Your task to perform on an android device: turn vacation reply on in the gmail app Image 0: 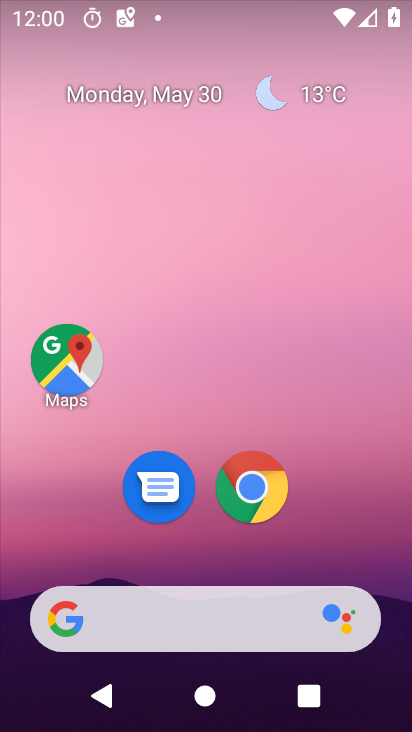
Step 0: drag from (391, 681) to (351, 179)
Your task to perform on an android device: turn vacation reply on in the gmail app Image 1: 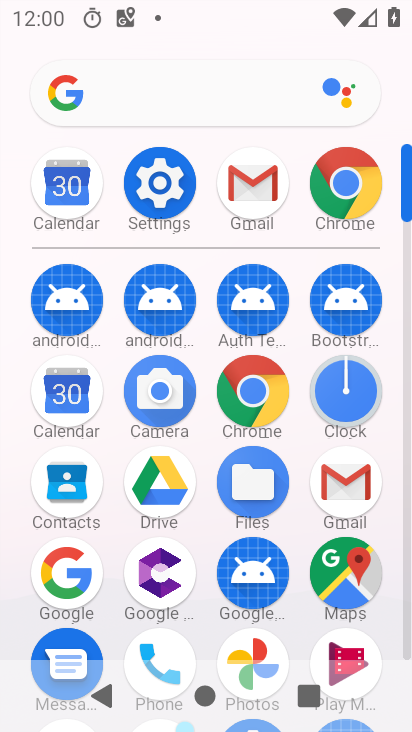
Step 1: click (328, 478)
Your task to perform on an android device: turn vacation reply on in the gmail app Image 2: 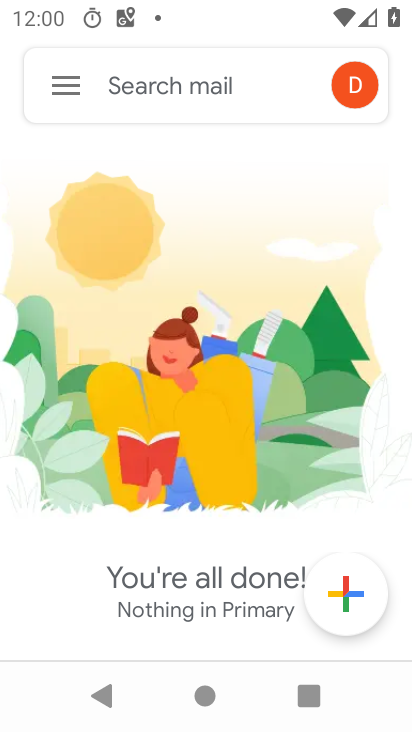
Step 2: click (70, 86)
Your task to perform on an android device: turn vacation reply on in the gmail app Image 3: 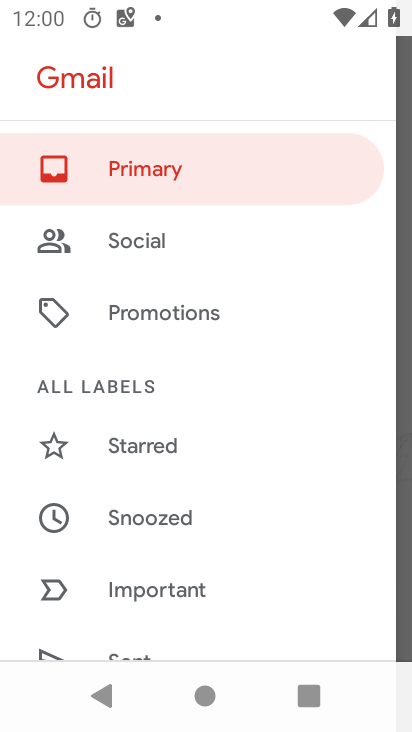
Step 3: drag from (257, 593) to (271, 243)
Your task to perform on an android device: turn vacation reply on in the gmail app Image 4: 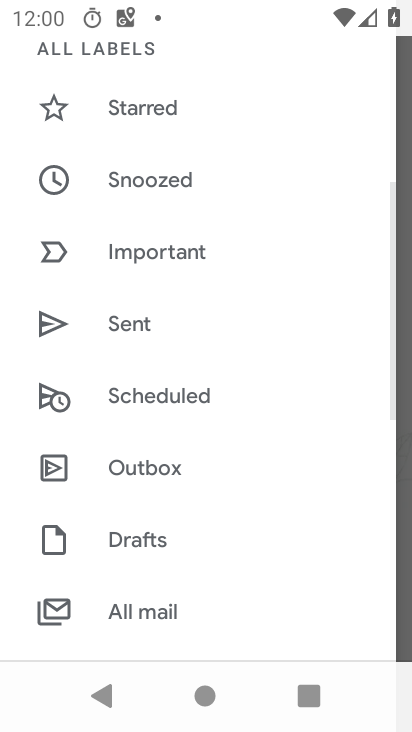
Step 4: drag from (237, 554) to (279, 297)
Your task to perform on an android device: turn vacation reply on in the gmail app Image 5: 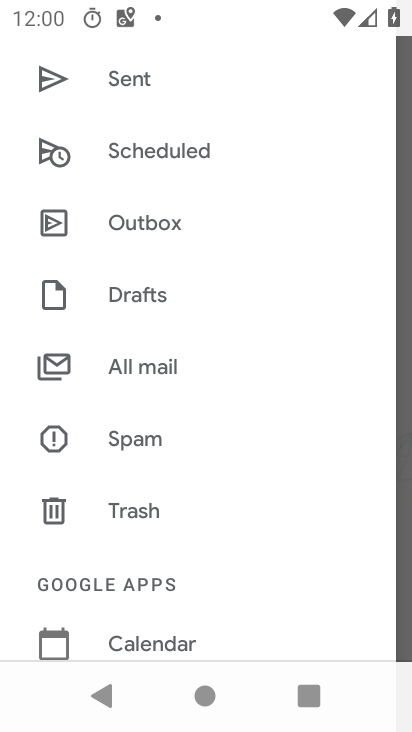
Step 5: drag from (250, 577) to (302, 241)
Your task to perform on an android device: turn vacation reply on in the gmail app Image 6: 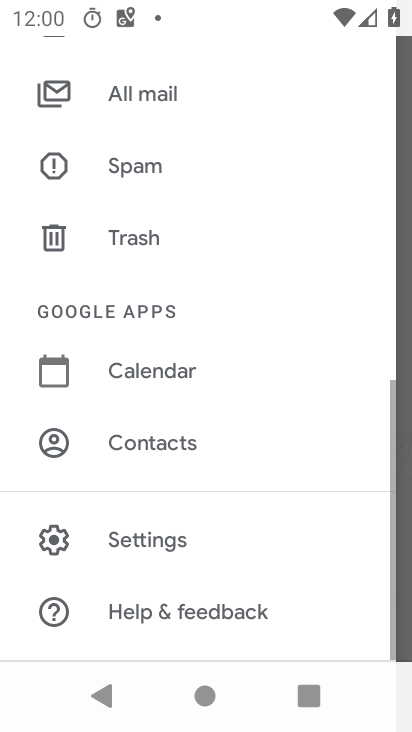
Step 6: click (128, 535)
Your task to perform on an android device: turn vacation reply on in the gmail app Image 7: 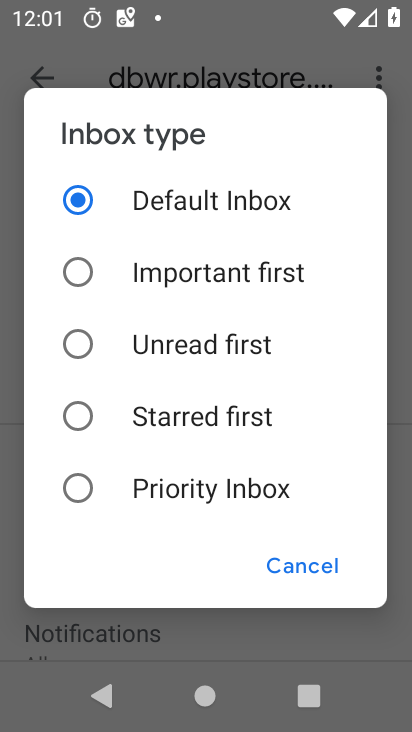
Step 7: press back button
Your task to perform on an android device: turn vacation reply on in the gmail app Image 8: 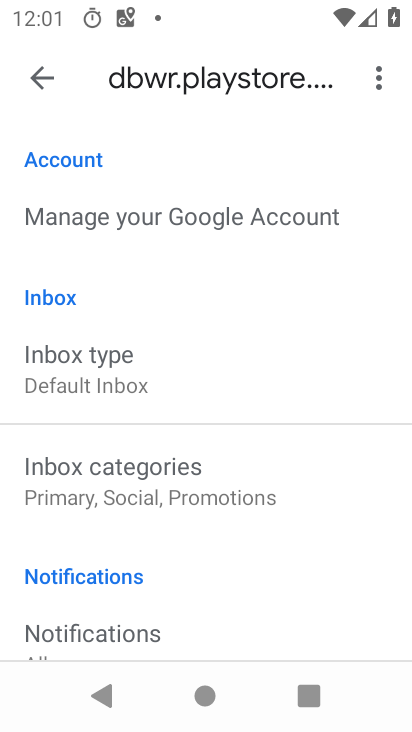
Step 8: drag from (218, 632) to (276, 332)
Your task to perform on an android device: turn vacation reply on in the gmail app Image 9: 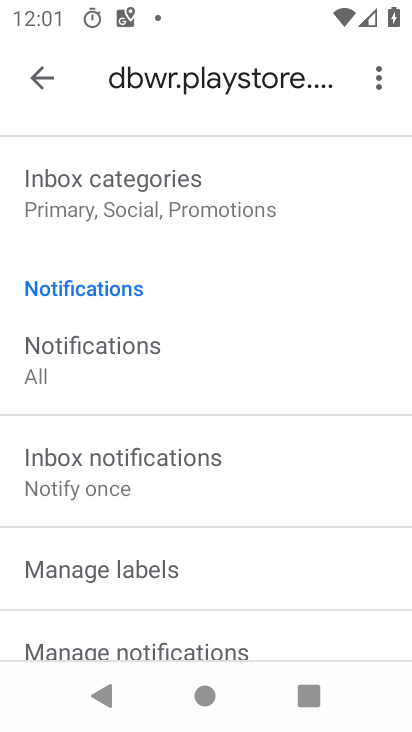
Step 9: drag from (301, 210) to (318, 497)
Your task to perform on an android device: turn vacation reply on in the gmail app Image 10: 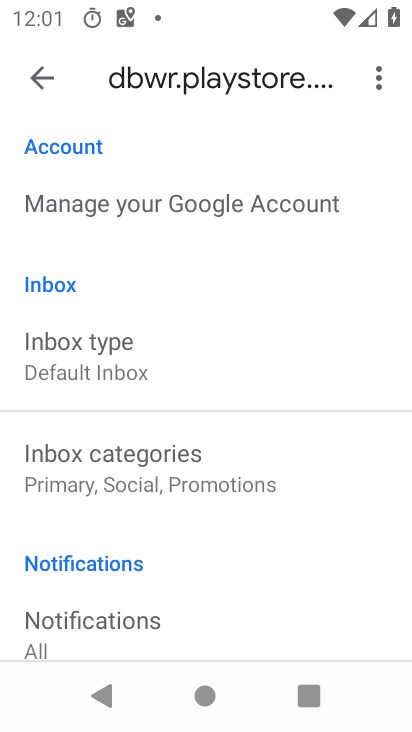
Step 10: click (102, 365)
Your task to perform on an android device: turn vacation reply on in the gmail app Image 11: 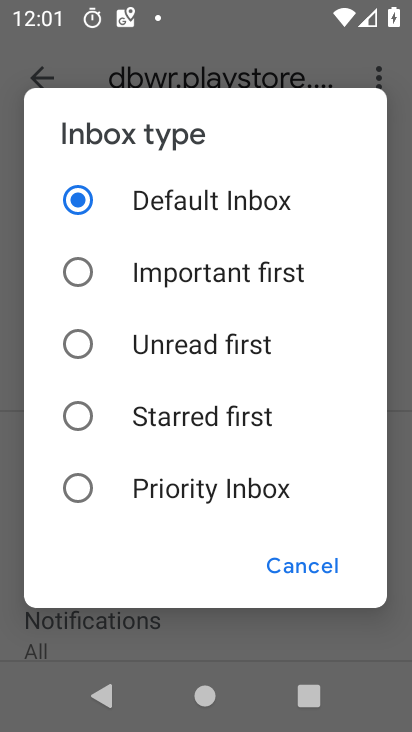
Step 11: click (287, 567)
Your task to perform on an android device: turn vacation reply on in the gmail app Image 12: 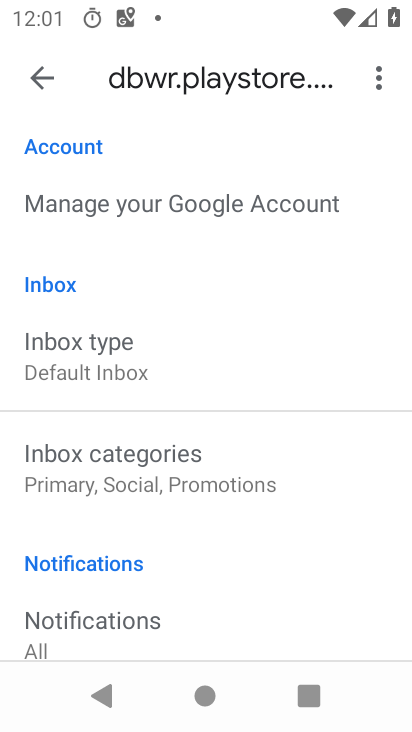
Step 12: click (41, 74)
Your task to perform on an android device: turn vacation reply on in the gmail app Image 13: 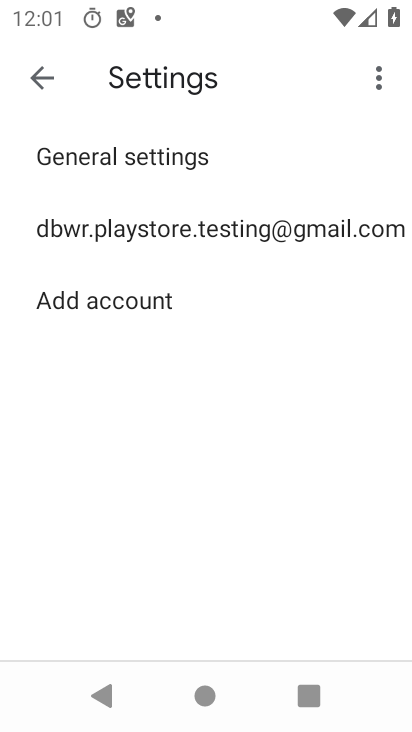
Step 13: click (95, 229)
Your task to perform on an android device: turn vacation reply on in the gmail app Image 14: 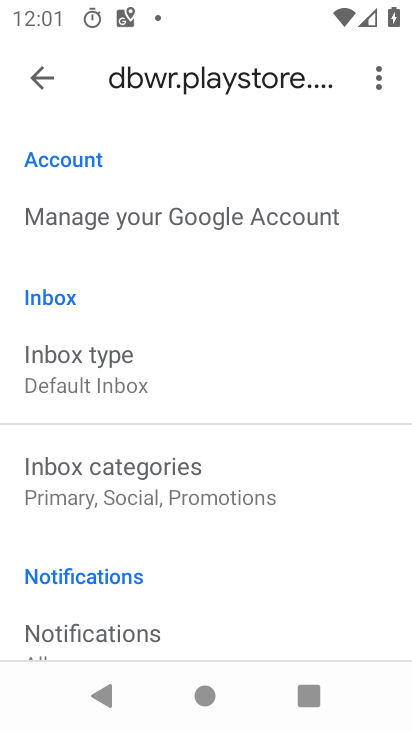
Step 14: drag from (233, 637) to (264, 294)
Your task to perform on an android device: turn vacation reply on in the gmail app Image 15: 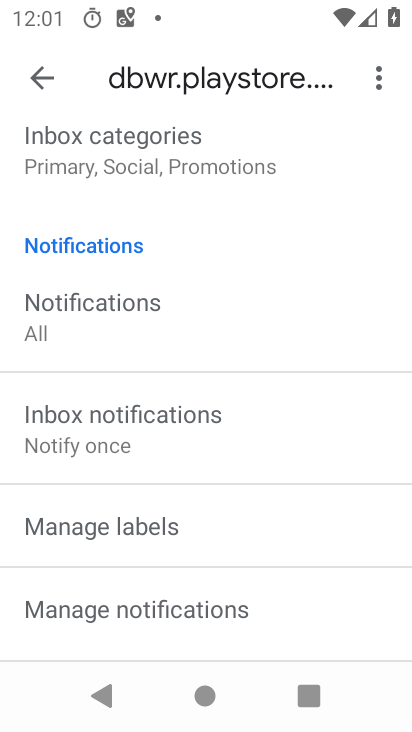
Step 15: drag from (247, 631) to (246, 253)
Your task to perform on an android device: turn vacation reply on in the gmail app Image 16: 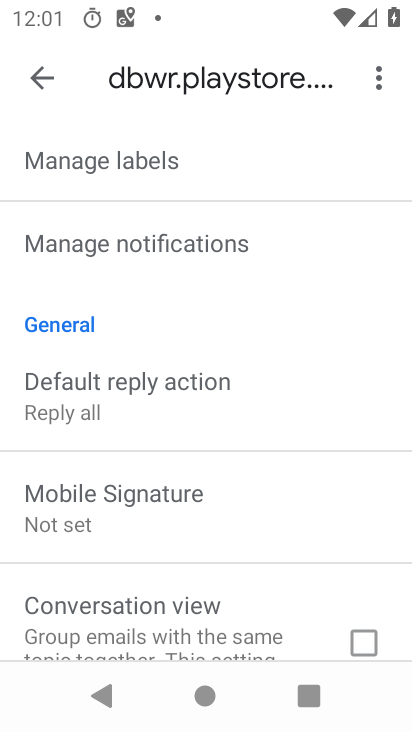
Step 16: drag from (261, 624) to (258, 360)
Your task to perform on an android device: turn vacation reply on in the gmail app Image 17: 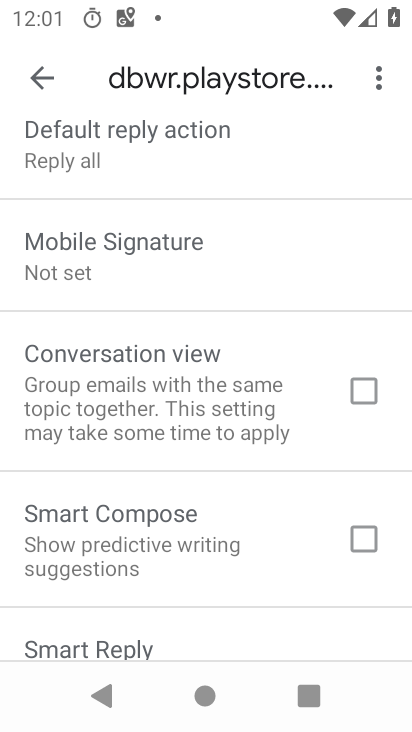
Step 17: drag from (193, 596) to (217, 284)
Your task to perform on an android device: turn vacation reply on in the gmail app Image 18: 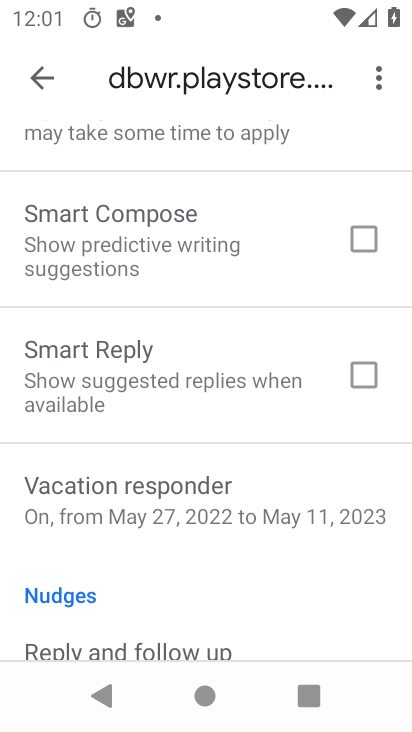
Step 18: click (372, 375)
Your task to perform on an android device: turn vacation reply on in the gmail app Image 19: 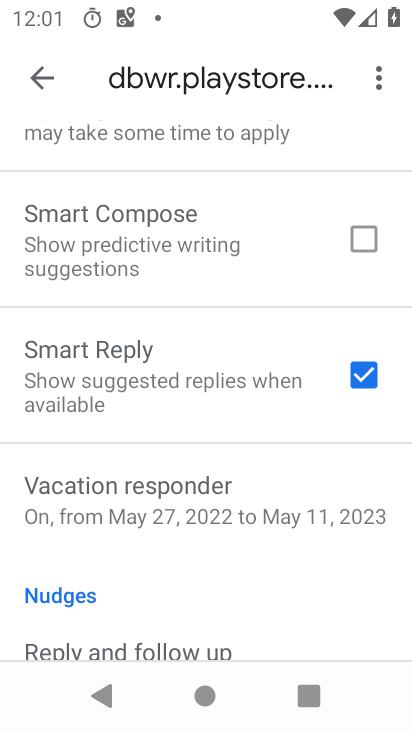
Step 19: task complete